Your task to perform on an android device: toggle sleep mode Image 0: 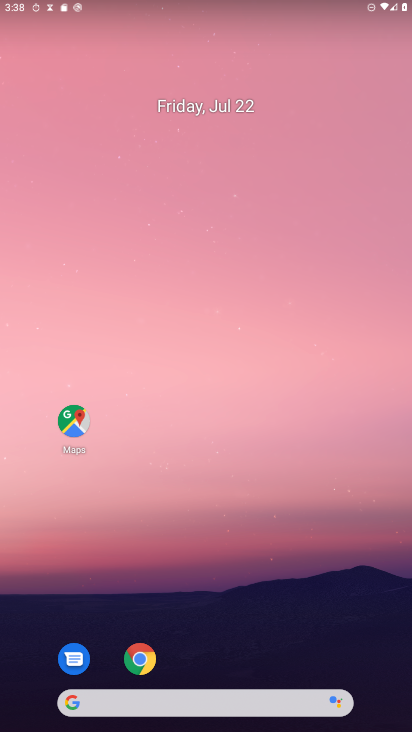
Step 0: click (225, 149)
Your task to perform on an android device: toggle sleep mode Image 1: 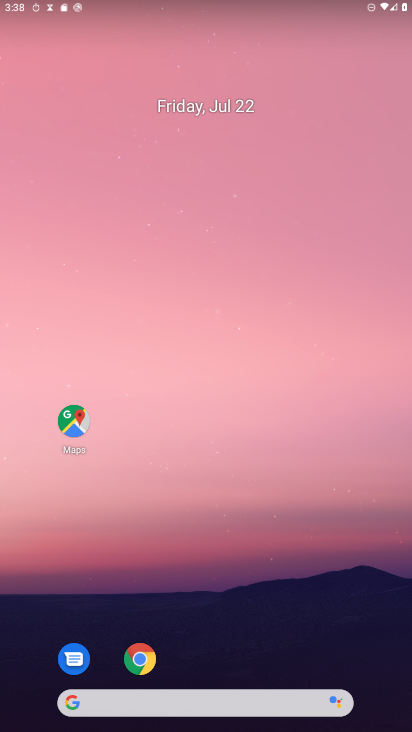
Step 1: click (253, 0)
Your task to perform on an android device: toggle sleep mode Image 2: 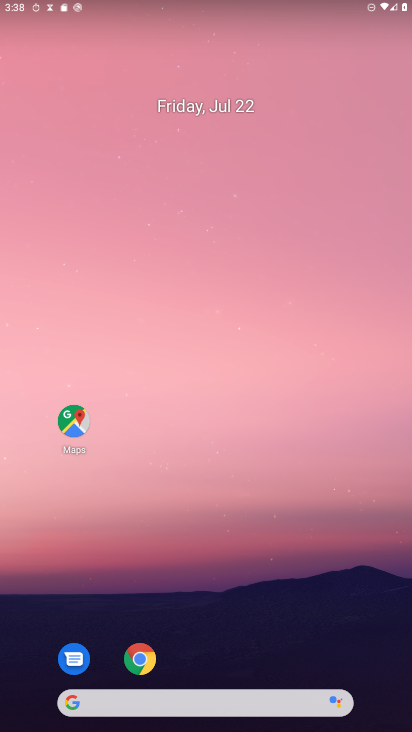
Step 2: drag from (239, 628) to (297, 15)
Your task to perform on an android device: toggle sleep mode Image 3: 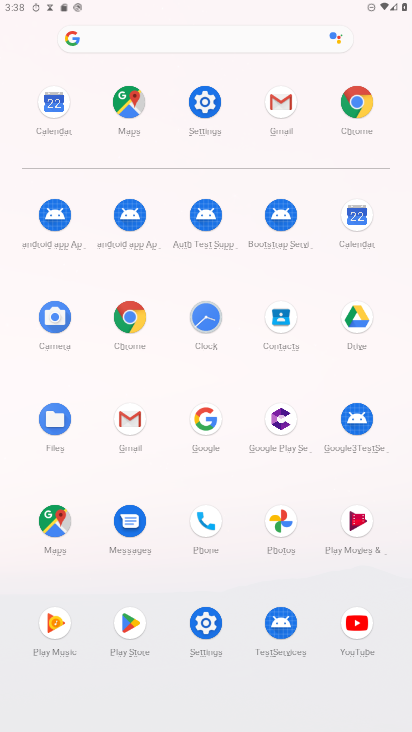
Step 3: click (203, 103)
Your task to perform on an android device: toggle sleep mode Image 4: 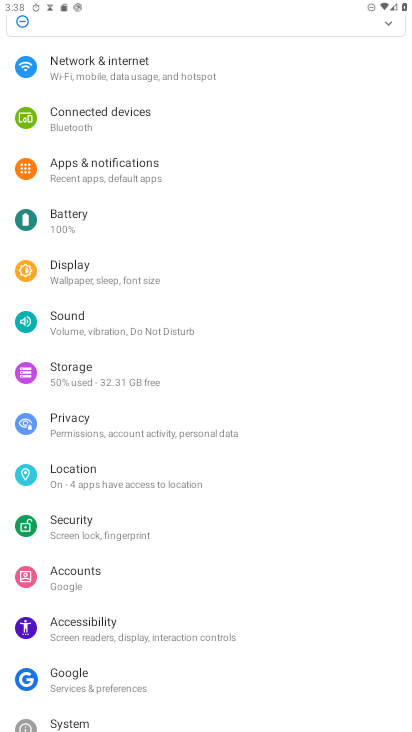
Step 4: drag from (127, 226) to (184, 619)
Your task to perform on an android device: toggle sleep mode Image 5: 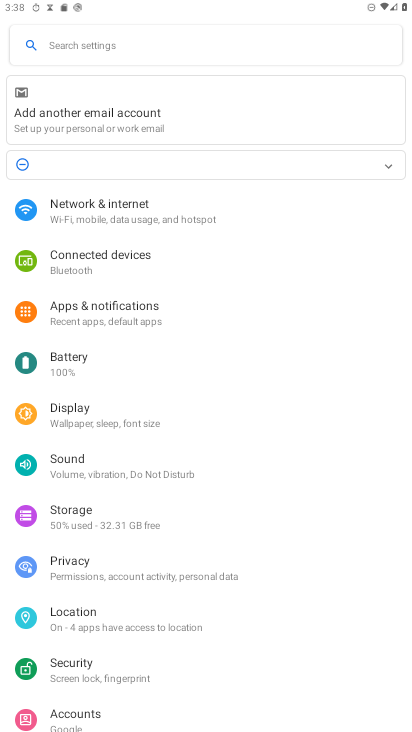
Step 5: click (117, 421)
Your task to perform on an android device: toggle sleep mode Image 6: 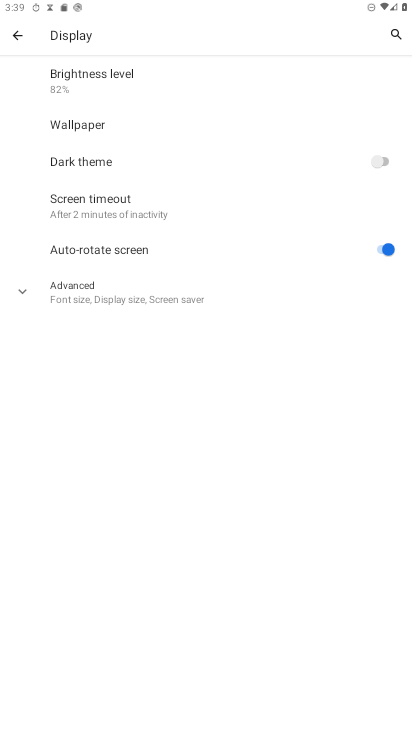
Step 6: click (78, 202)
Your task to perform on an android device: toggle sleep mode Image 7: 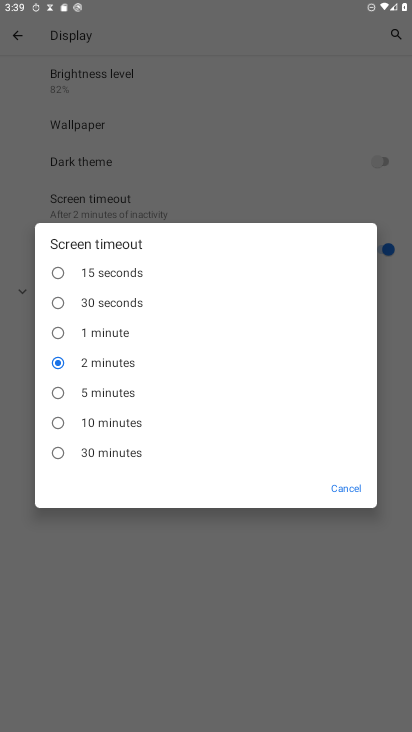
Step 7: click (102, 394)
Your task to perform on an android device: toggle sleep mode Image 8: 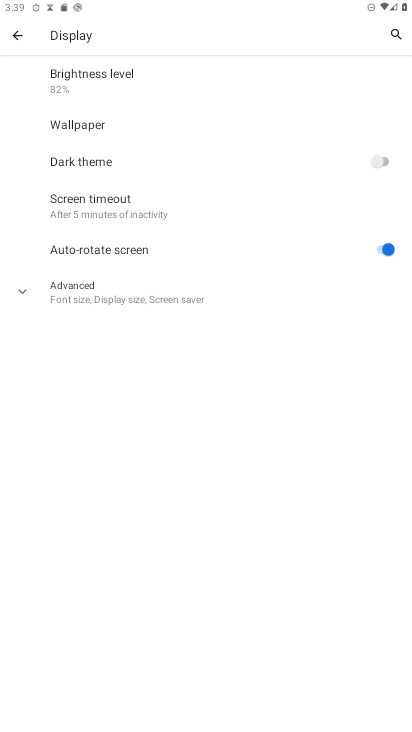
Step 8: task complete